Your task to perform on an android device: Go to ESPN.com Image 0: 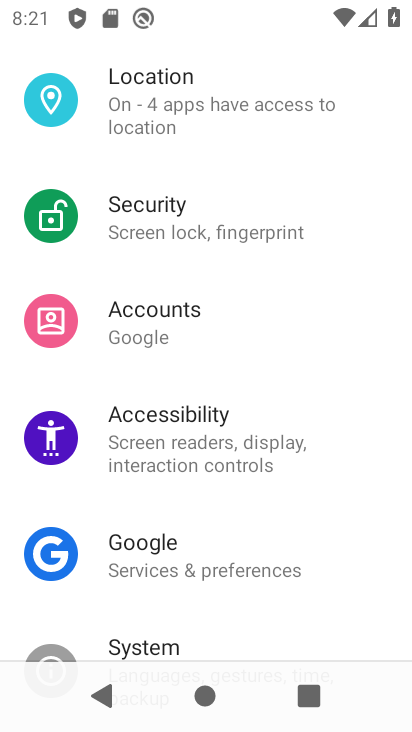
Step 0: press home button
Your task to perform on an android device: Go to ESPN.com Image 1: 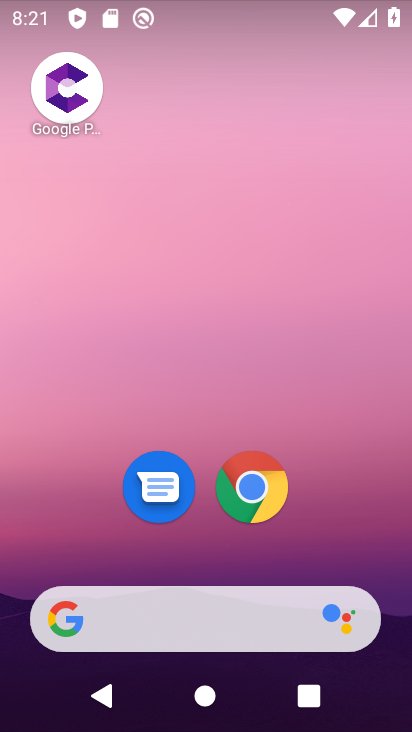
Step 1: click (234, 489)
Your task to perform on an android device: Go to ESPN.com Image 2: 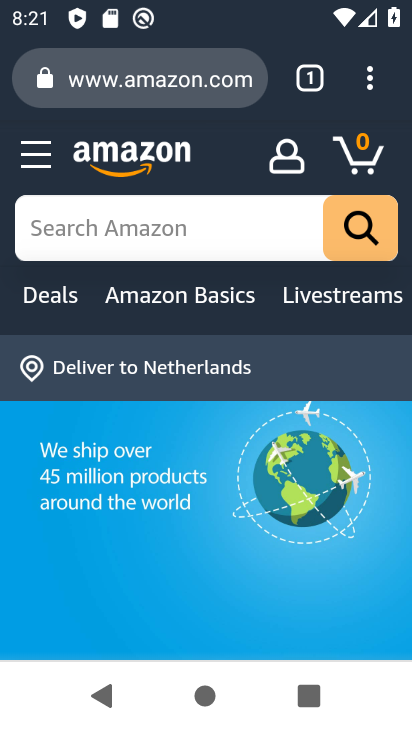
Step 2: click (308, 80)
Your task to perform on an android device: Go to ESPN.com Image 3: 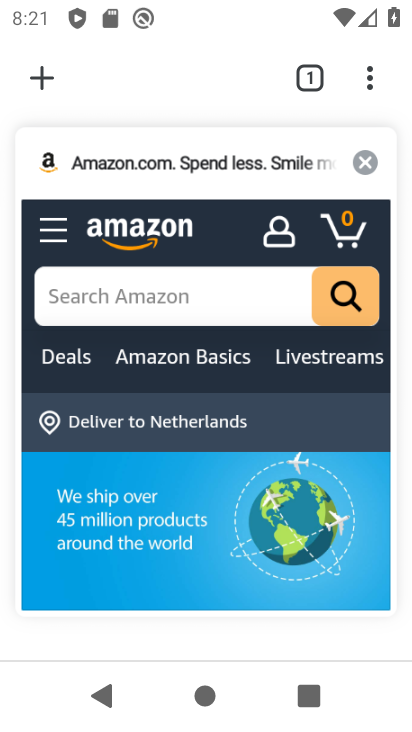
Step 3: click (50, 85)
Your task to perform on an android device: Go to ESPN.com Image 4: 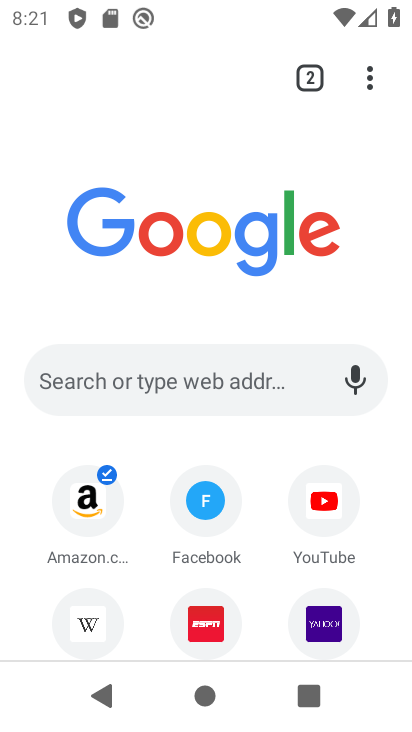
Step 4: click (202, 634)
Your task to perform on an android device: Go to ESPN.com Image 5: 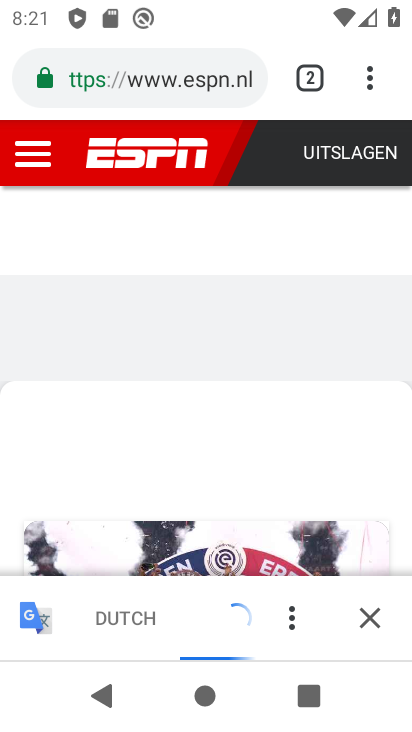
Step 5: task complete